Your task to perform on an android device: change the clock style Image 0: 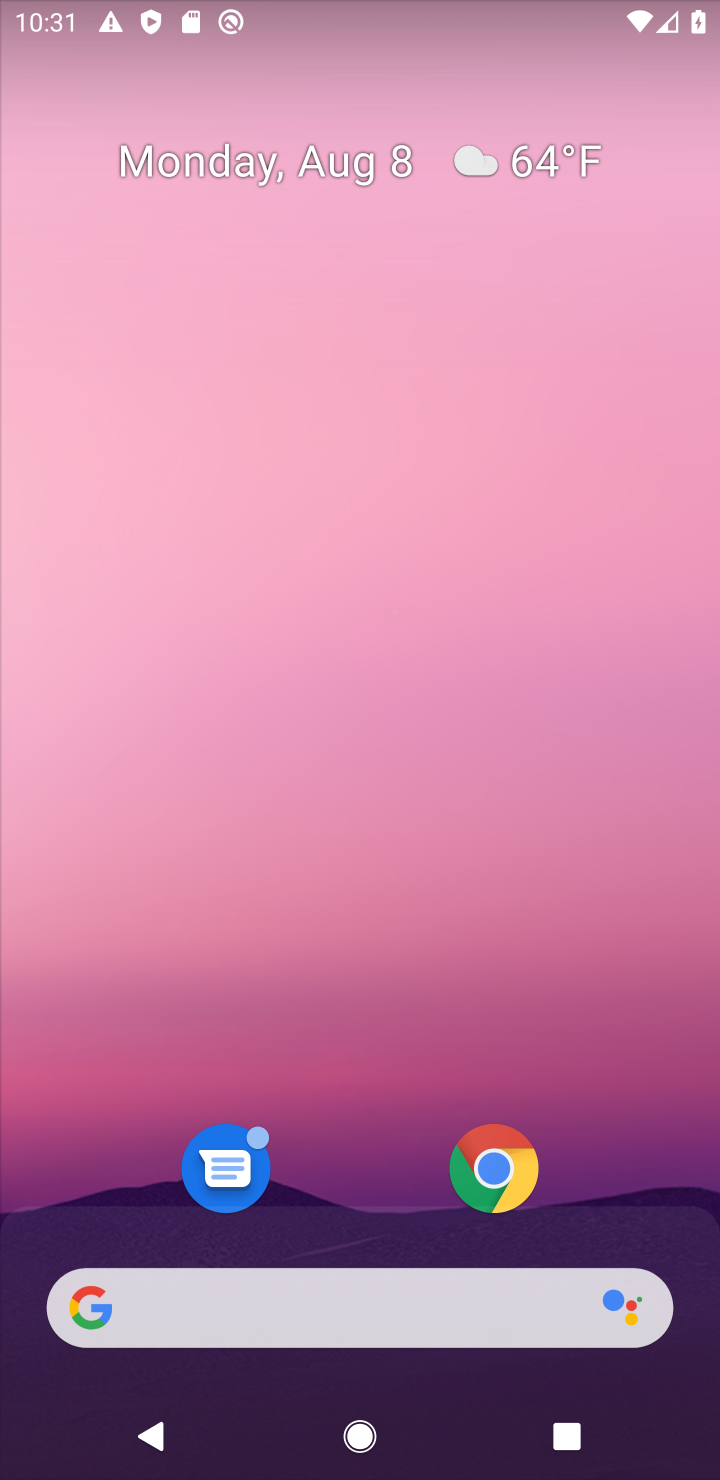
Step 0: drag from (358, 1064) to (702, 389)
Your task to perform on an android device: change the clock style Image 1: 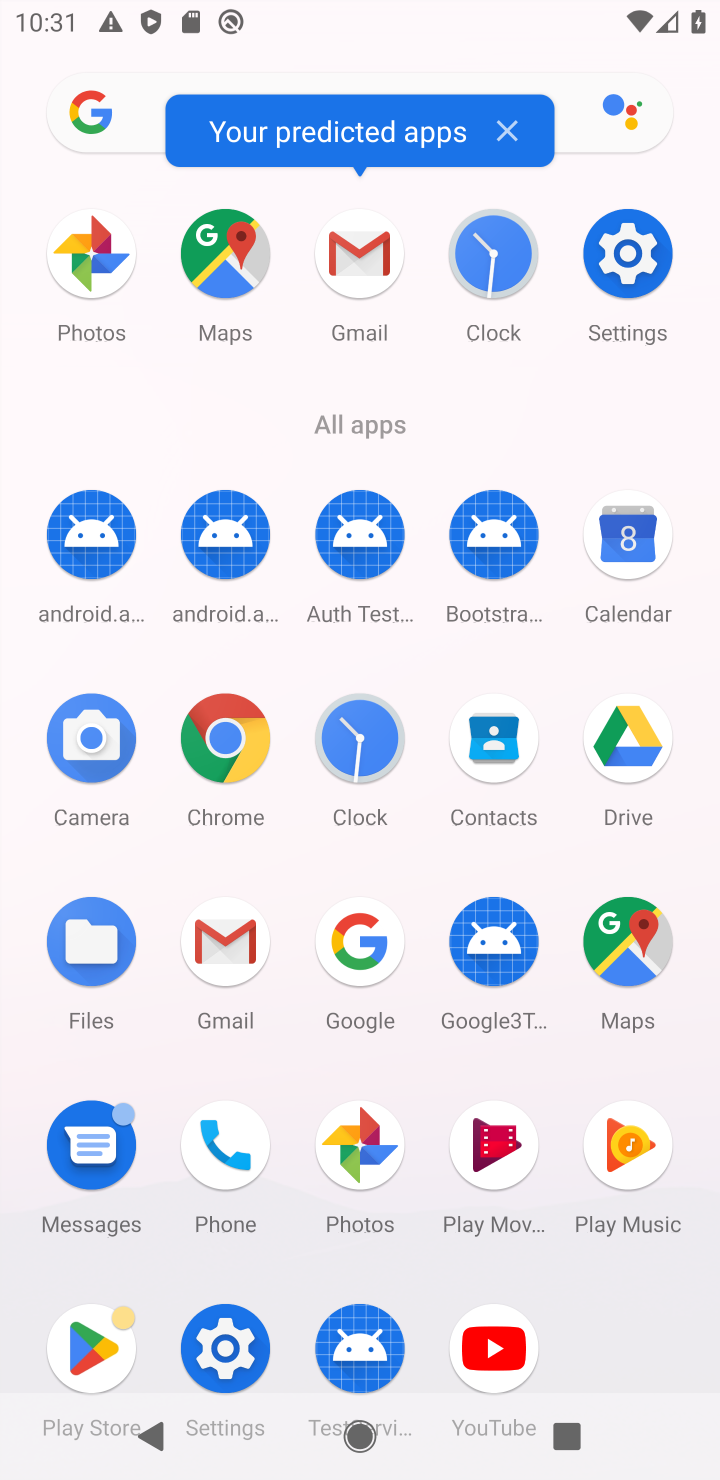
Step 1: click (487, 247)
Your task to perform on an android device: change the clock style Image 2: 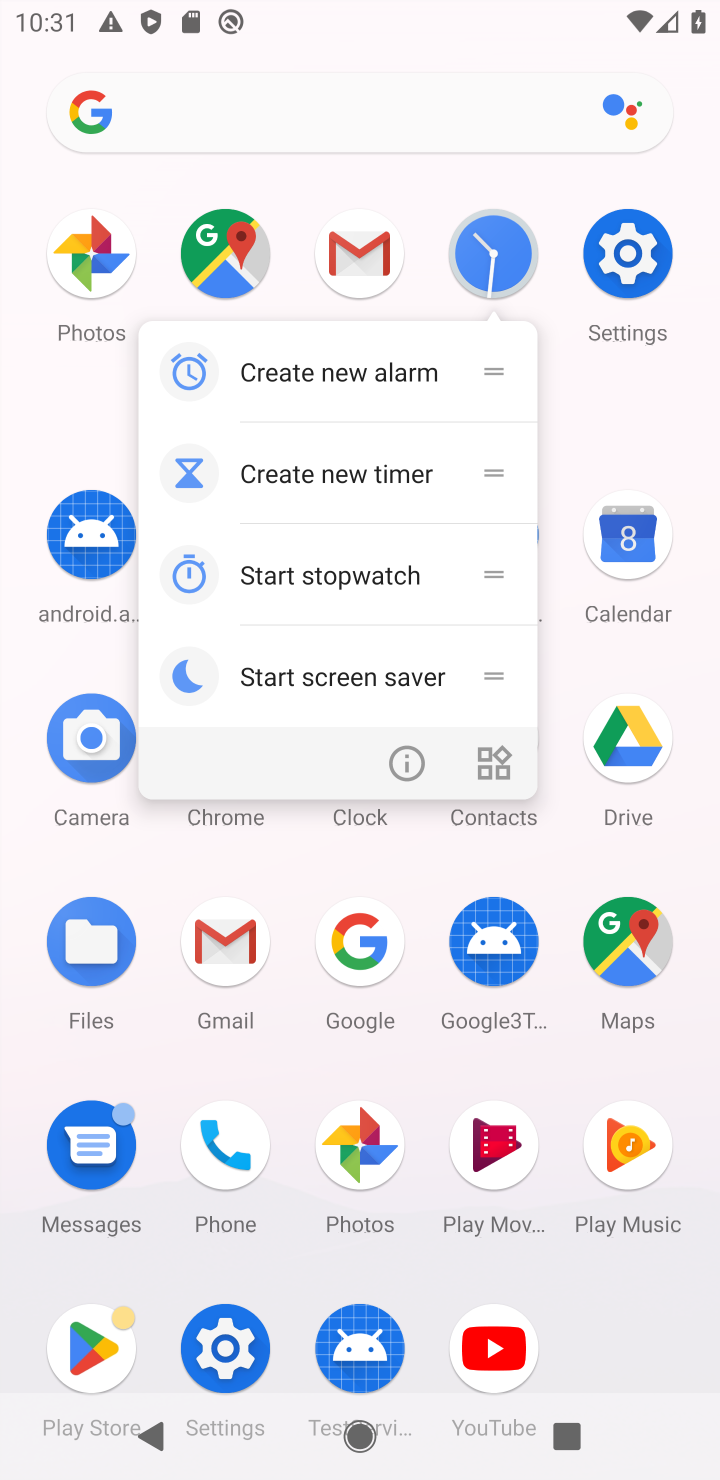
Step 2: click (523, 271)
Your task to perform on an android device: change the clock style Image 3: 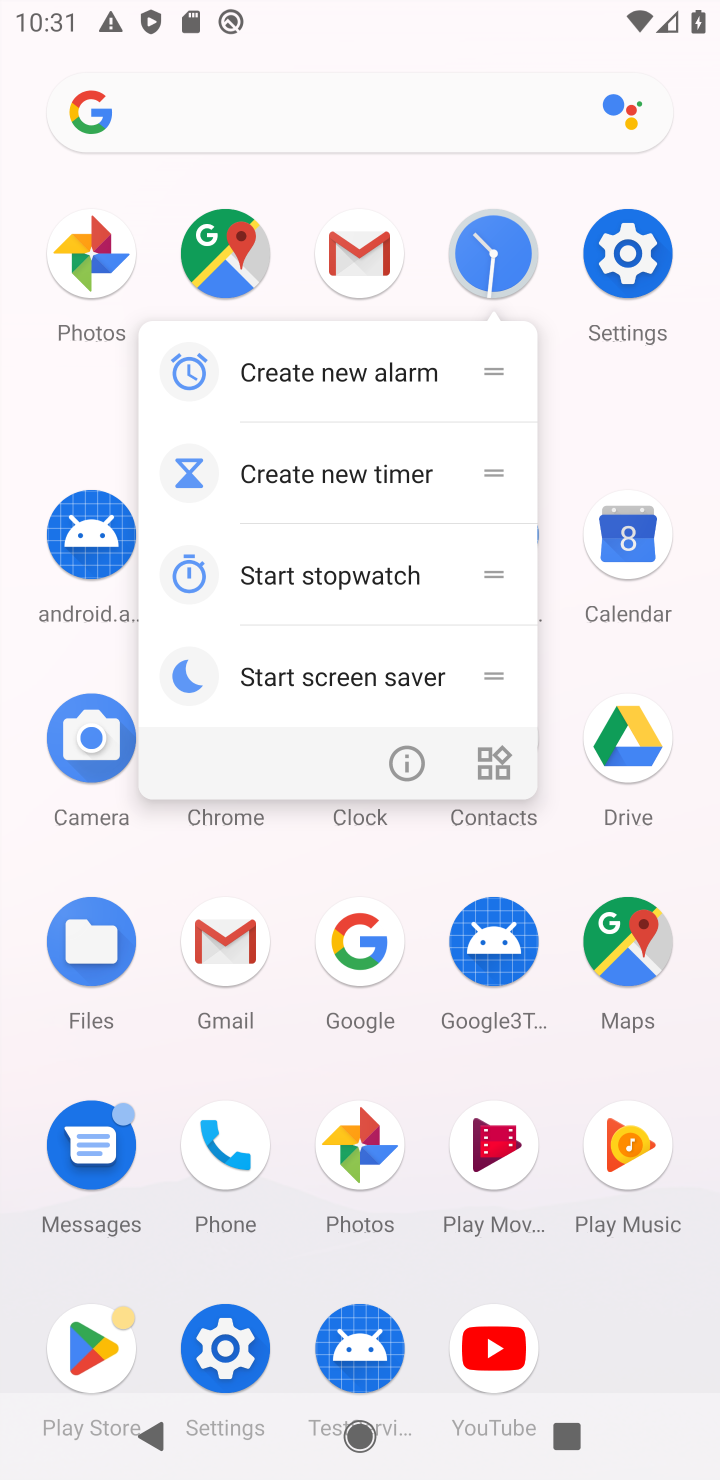
Step 3: click (479, 261)
Your task to perform on an android device: change the clock style Image 4: 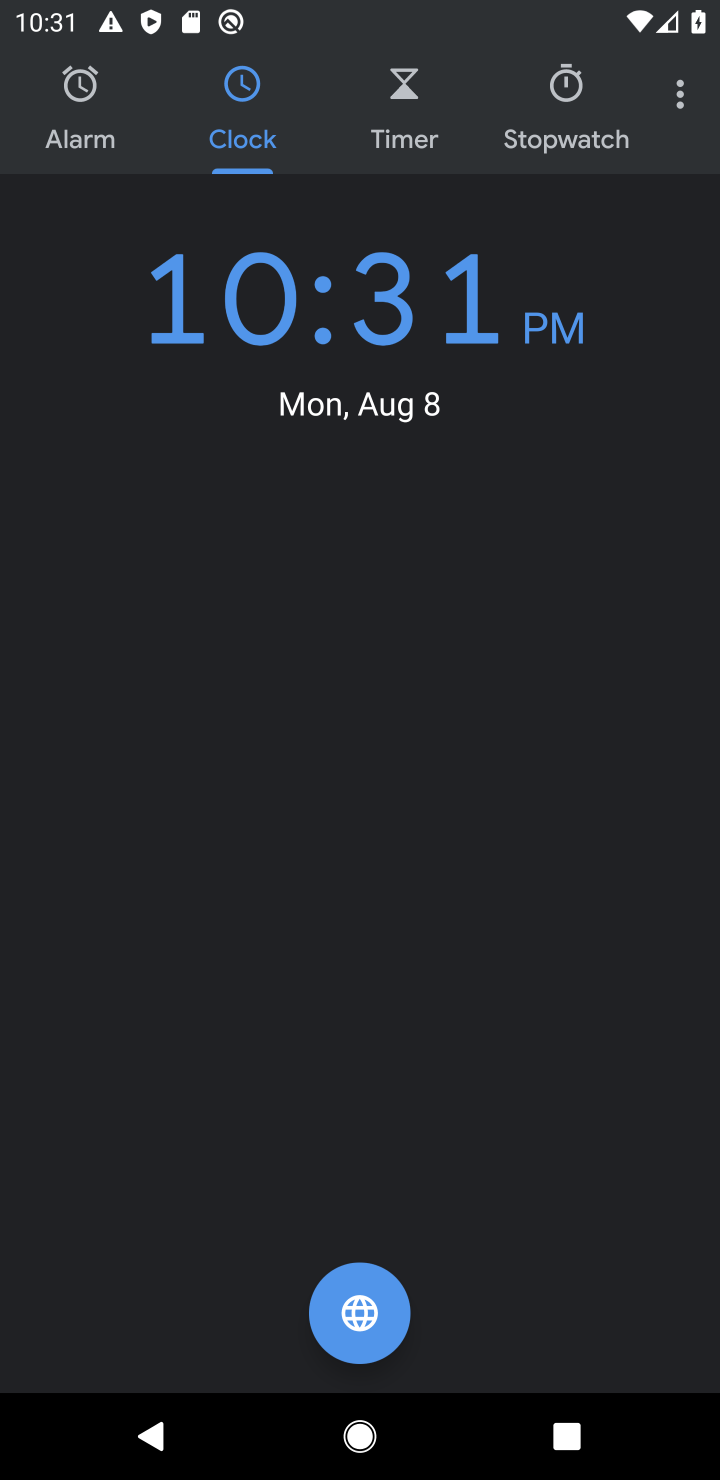
Step 4: click (682, 104)
Your task to perform on an android device: change the clock style Image 5: 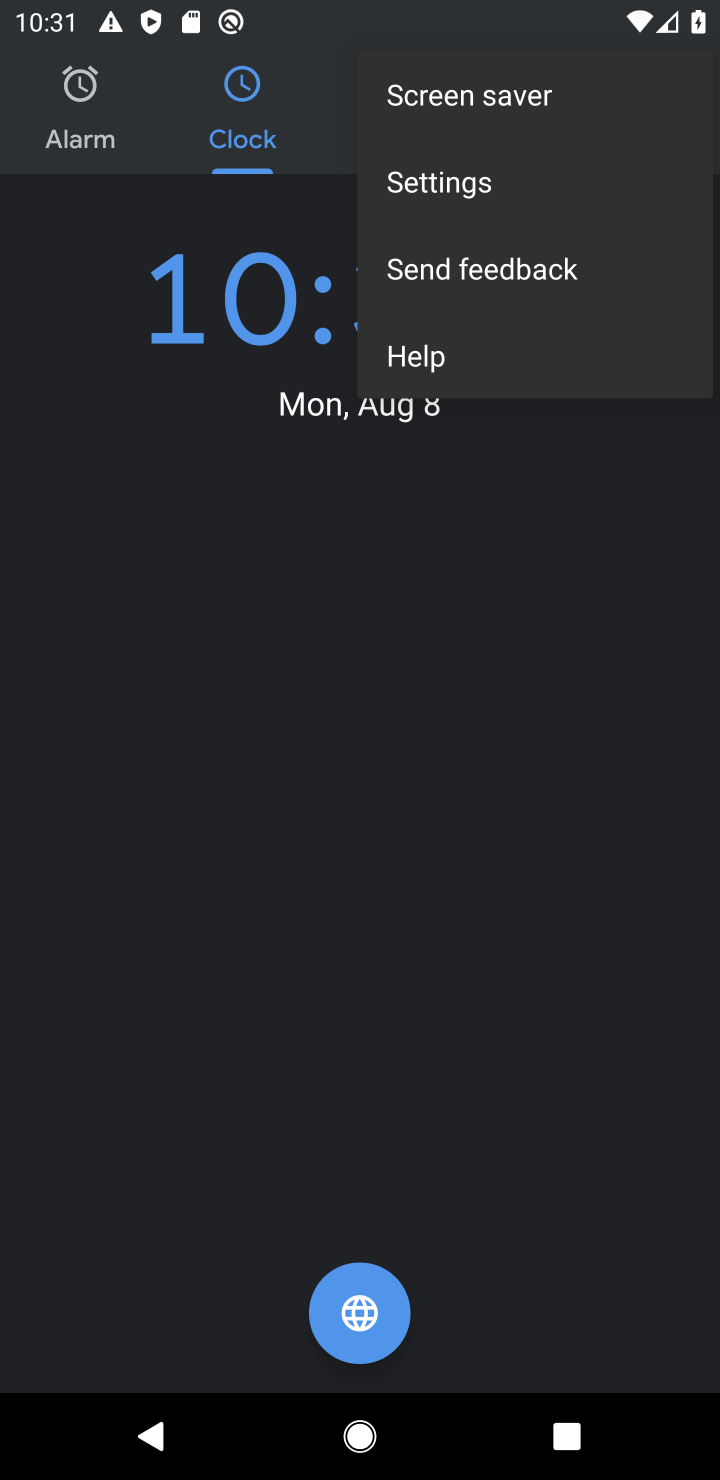
Step 5: click (461, 198)
Your task to perform on an android device: change the clock style Image 6: 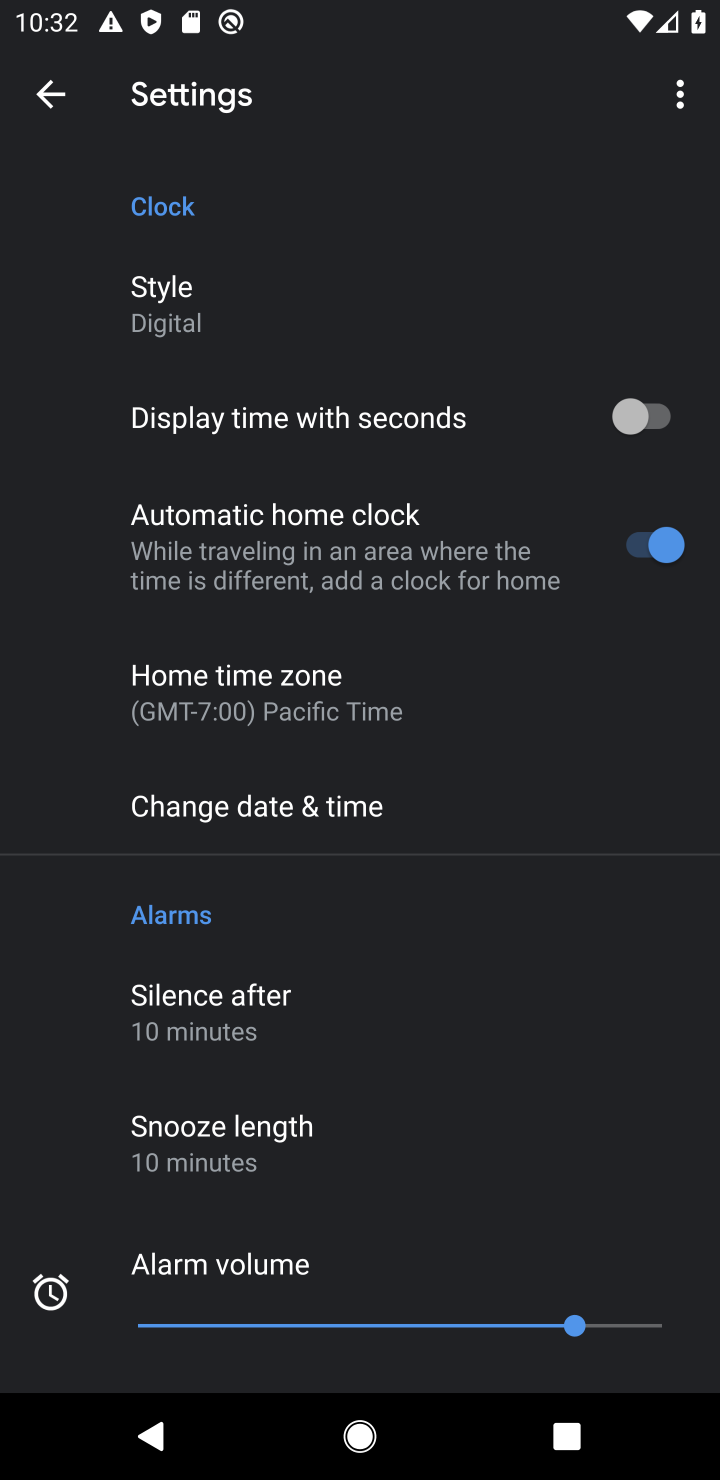
Step 6: click (258, 305)
Your task to perform on an android device: change the clock style Image 7: 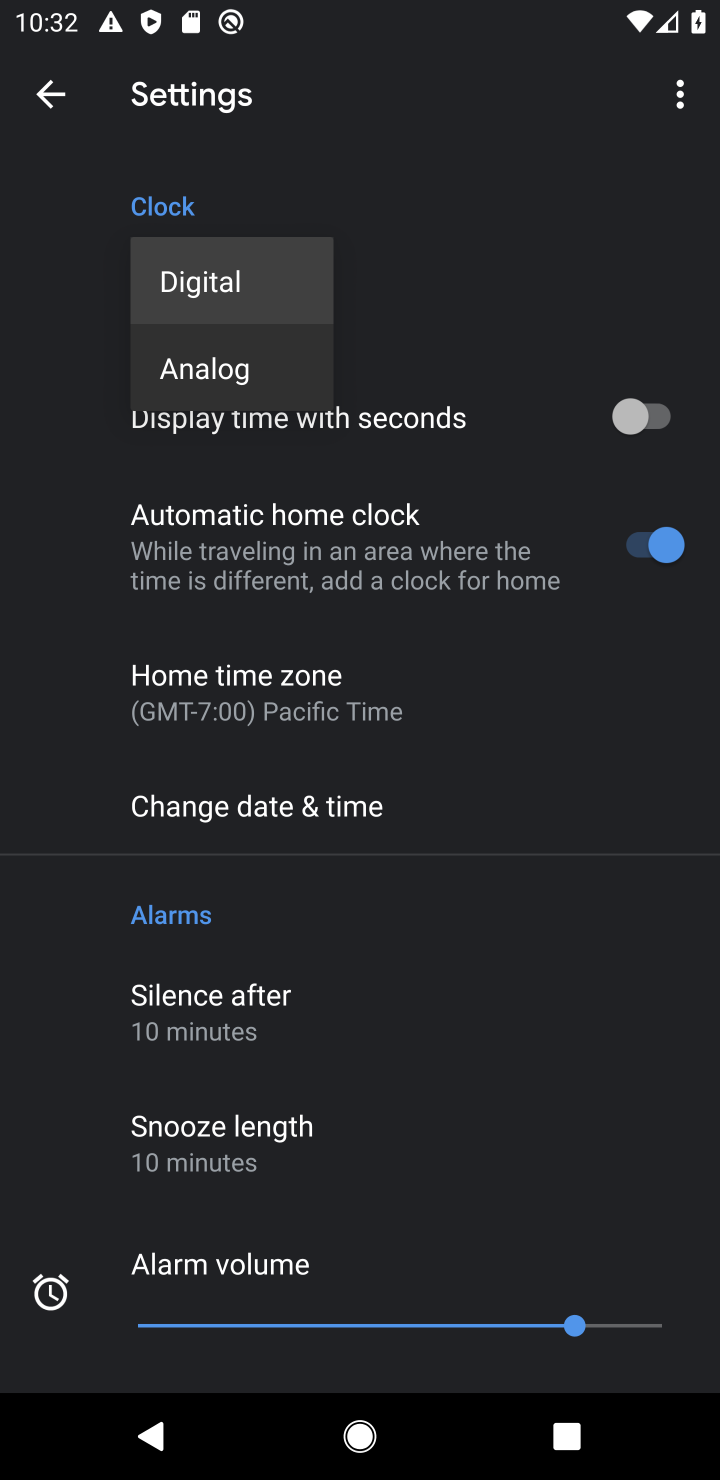
Step 7: click (241, 372)
Your task to perform on an android device: change the clock style Image 8: 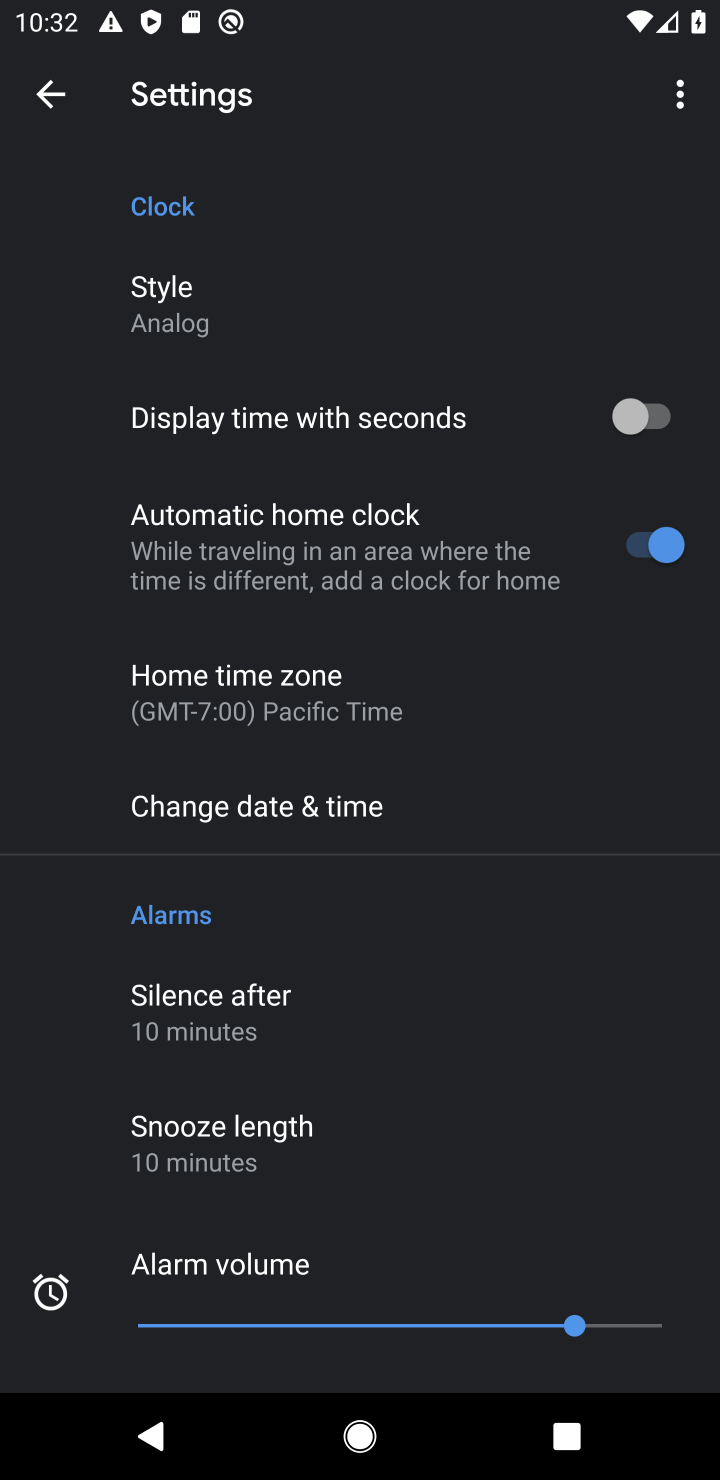
Step 8: task complete